Your task to perform on an android device: turn off javascript in the chrome app Image 0: 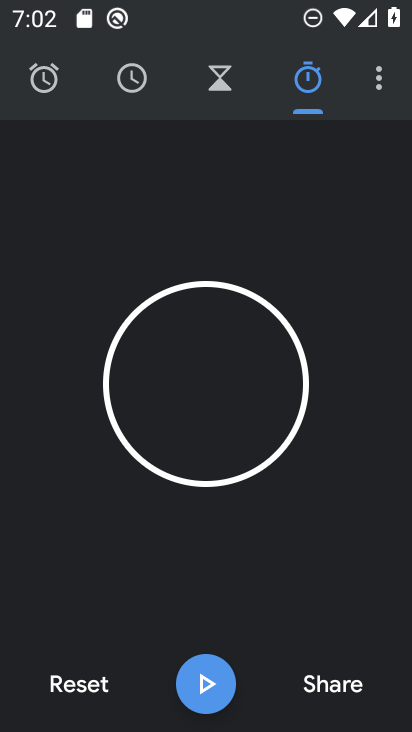
Step 0: press home button
Your task to perform on an android device: turn off javascript in the chrome app Image 1: 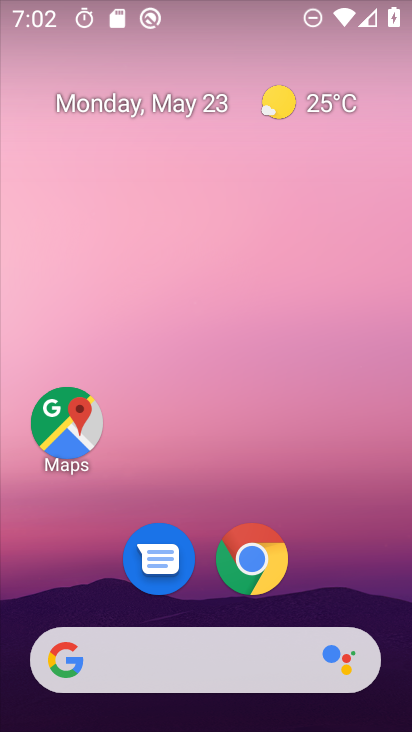
Step 1: drag from (395, 667) to (209, 18)
Your task to perform on an android device: turn off javascript in the chrome app Image 2: 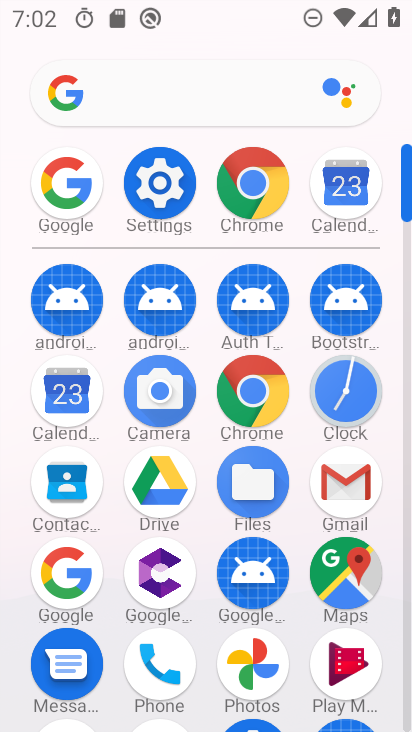
Step 2: click (236, 200)
Your task to perform on an android device: turn off javascript in the chrome app Image 3: 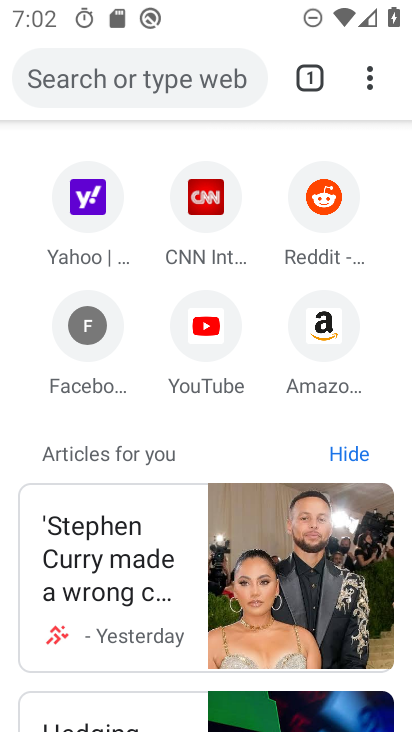
Step 3: click (371, 71)
Your task to perform on an android device: turn off javascript in the chrome app Image 4: 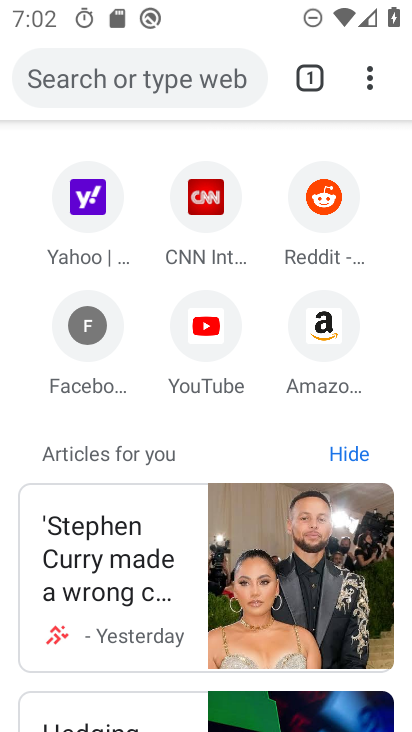
Step 4: click (371, 71)
Your task to perform on an android device: turn off javascript in the chrome app Image 5: 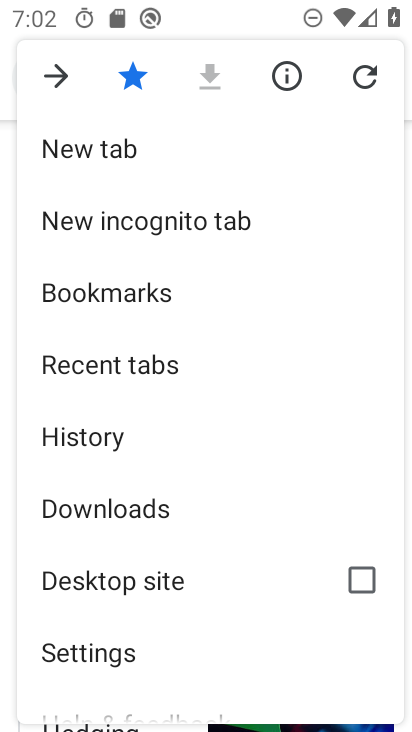
Step 5: click (126, 644)
Your task to perform on an android device: turn off javascript in the chrome app Image 6: 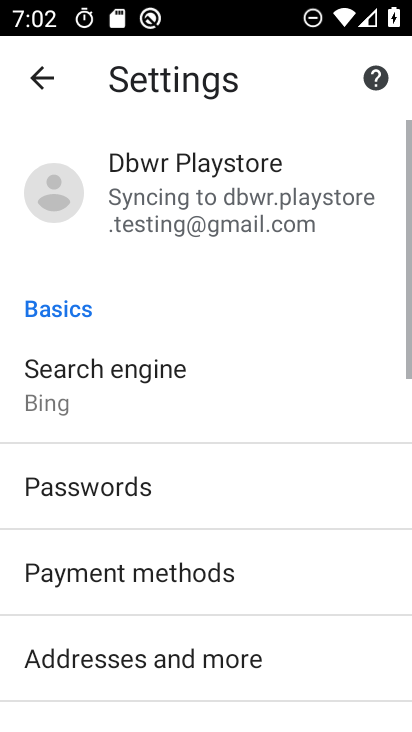
Step 6: drag from (125, 645) to (141, 61)
Your task to perform on an android device: turn off javascript in the chrome app Image 7: 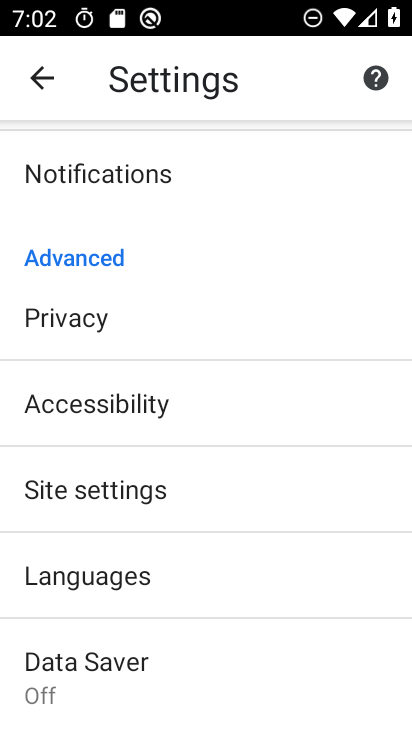
Step 7: click (178, 471)
Your task to perform on an android device: turn off javascript in the chrome app Image 8: 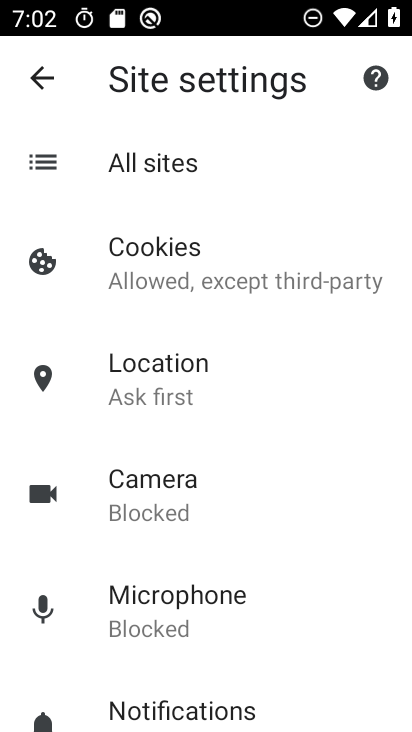
Step 8: drag from (103, 671) to (176, 198)
Your task to perform on an android device: turn off javascript in the chrome app Image 9: 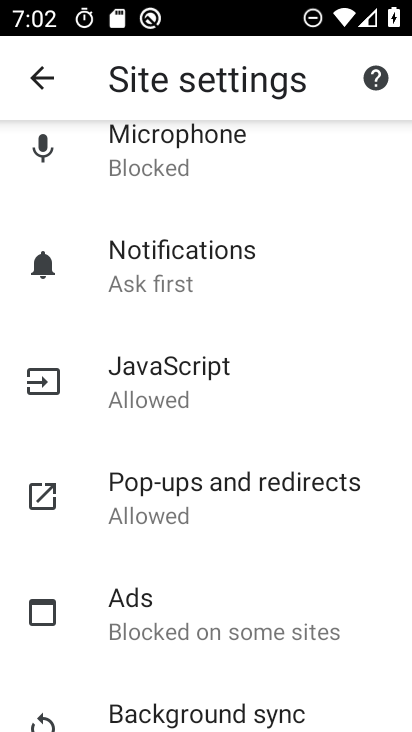
Step 9: click (172, 411)
Your task to perform on an android device: turn off javascript in the chrome app Image 10: 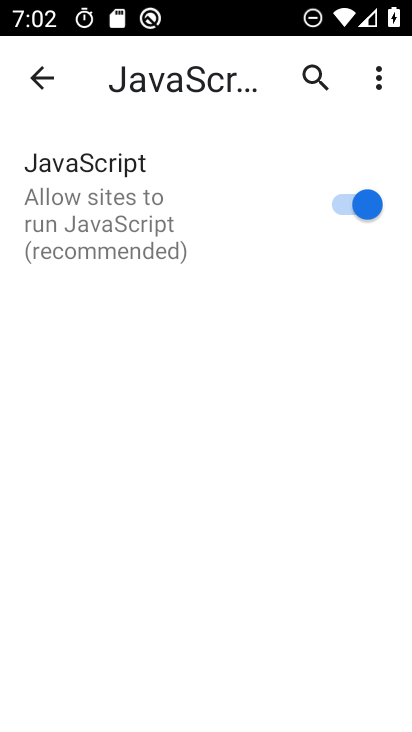
Step 10: click (331, 209)
Your task to perform on an android device: turn off javascript in the chrome app Image 11: 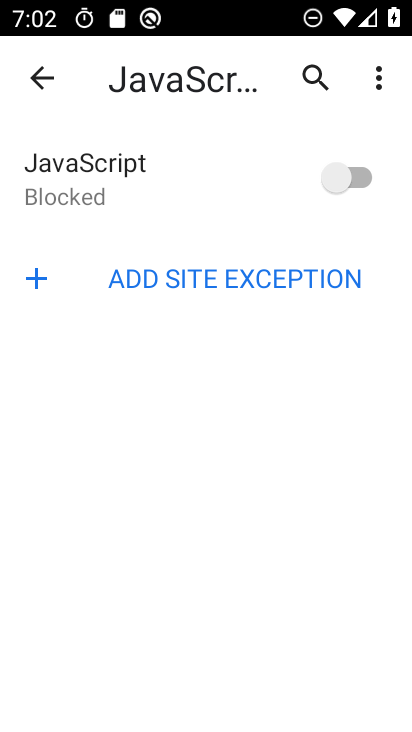
Step 11: task complete